Your task to perform on an android device: Open Android settings Image 0: 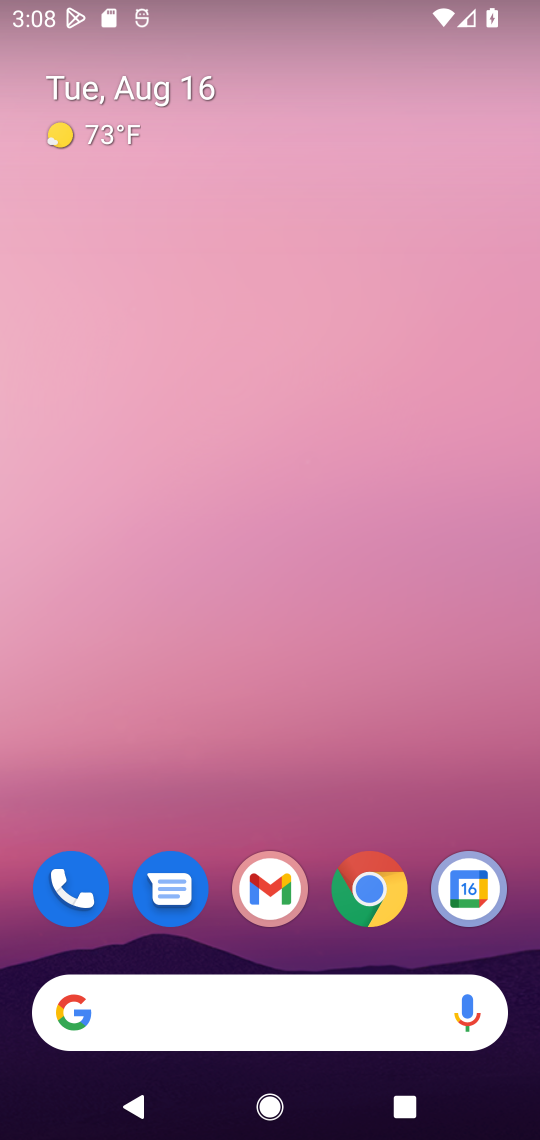
Step 0: drag from (283, 792) to (268, 235)
Your task to perform on an android device: Open Android settings Image 1: 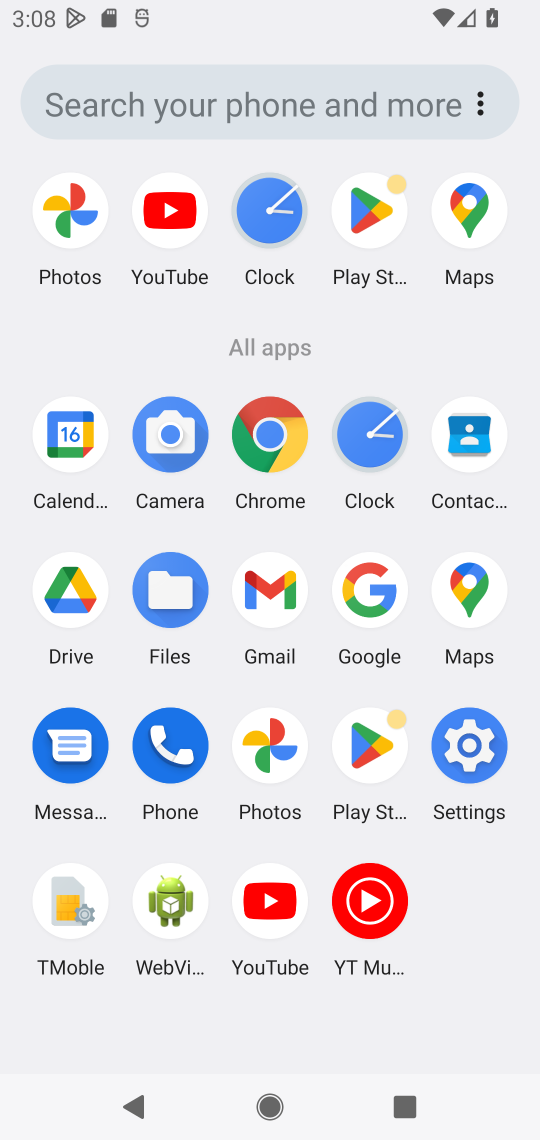
Step 1: click (469, 748)
Your task to perform on an android device: Open Android settings Image 2: 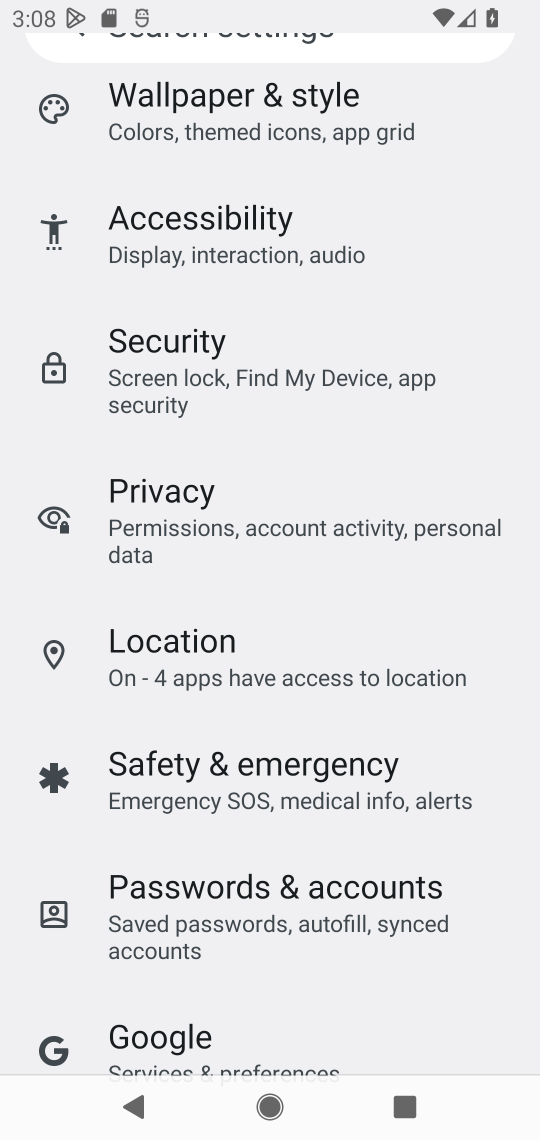
Step 2: task complete